Your task to perform on an android device: Go to display settings Image 0: 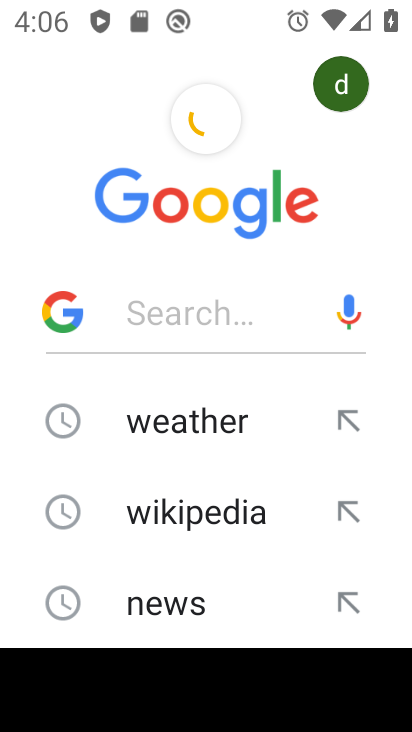
Step 0: press back button
Your task to perform on an android device: Go to display settings Image 1: 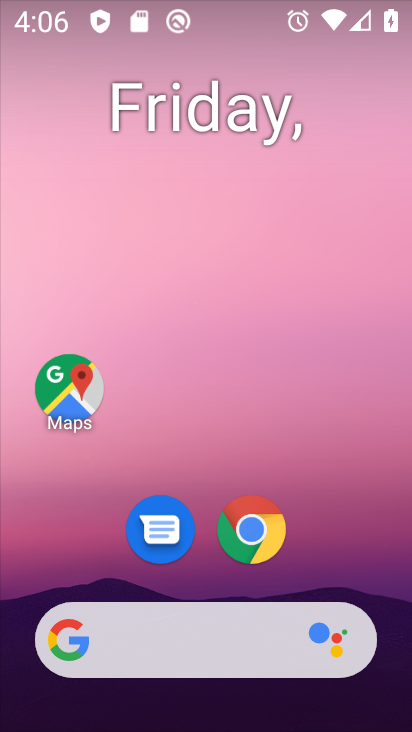
Step 1: drag from (107, 595) to (204, 181)
Your task to perform on an android device: Go to display settings Image 2: 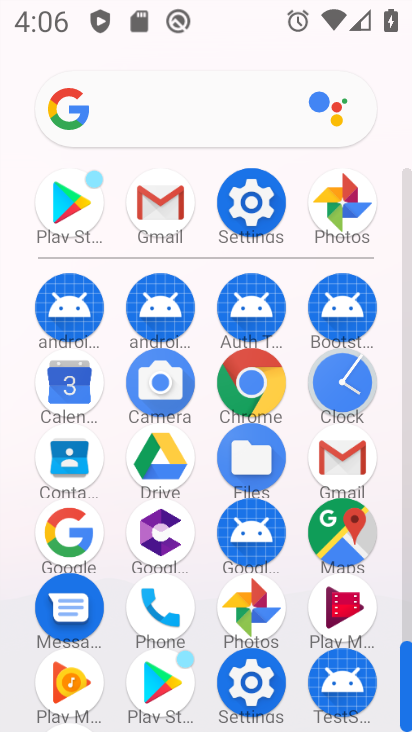
Step 2: drag from (182, 617) to (266, 395)
Your task to perform on an android device: Go to display settings Image 3: 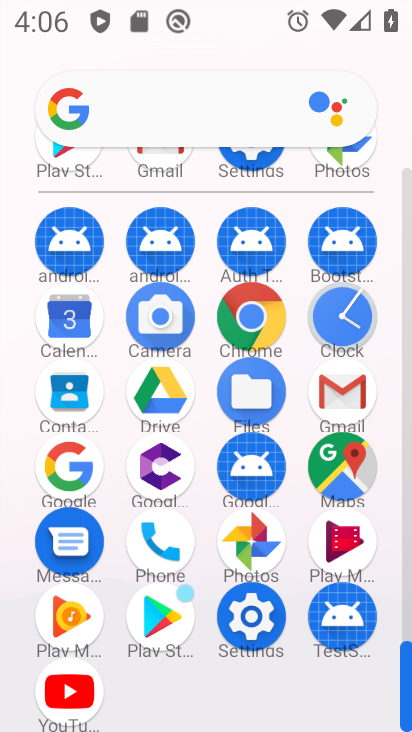
Step 3: click (253, 620)
Your task to perform on an android device: Go to display settings Image 4: 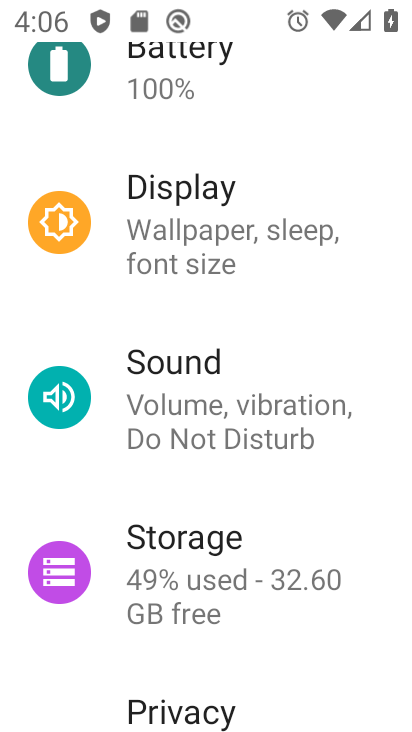
Step 4: click (242, 253)
Your task to perform on an android device: Go to display settings Image 5: 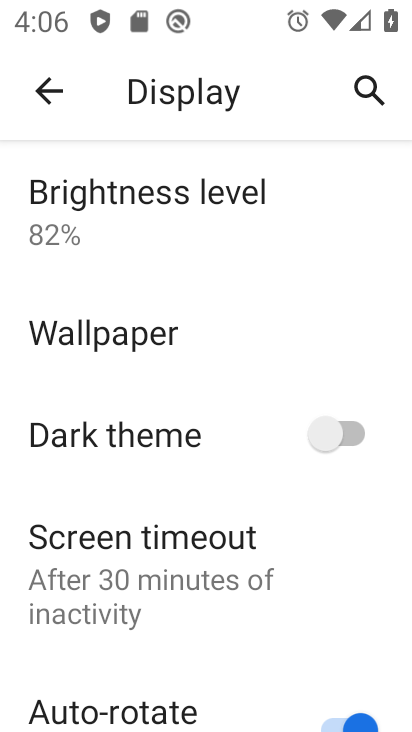
Step 5: task complete